Your task to perform on an android device: set an alarm Image 0: 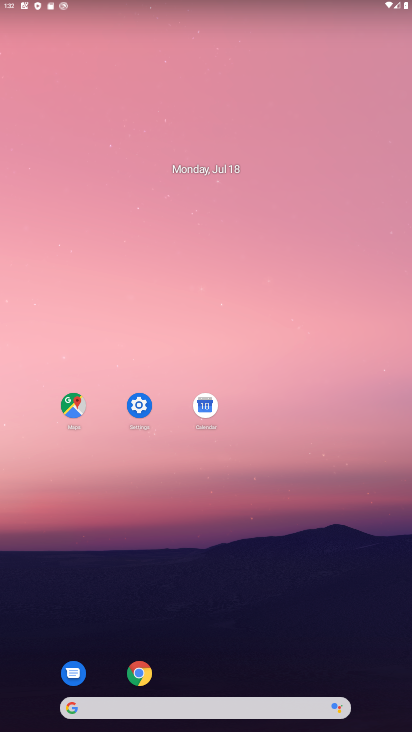
Step 0: click (286, 540)
Your task to perform on an android device: set an alarm Image 1: 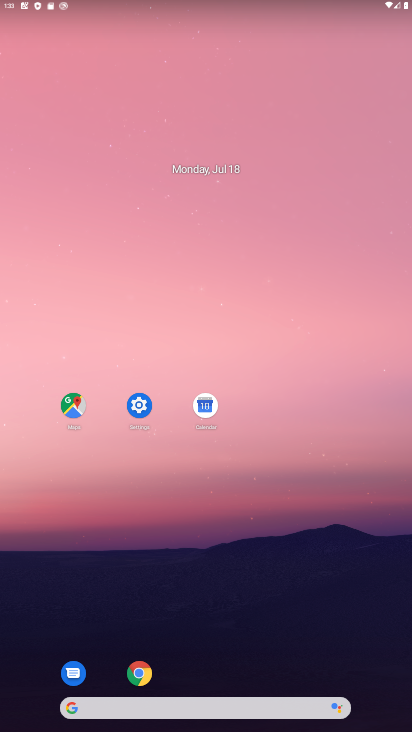
Step 1: drag from (383, 688) to (314, 0)
Your task to perform on an android device: set an alarm Image 2: 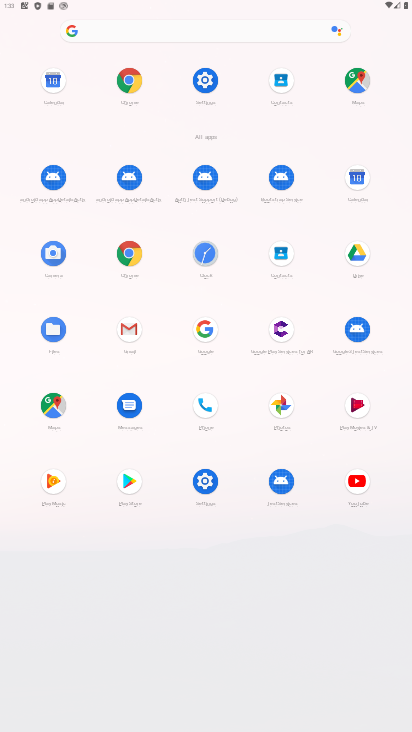
Step 2: click (201, 255)
Your task to perform on an android device: set an alarm Image 3: 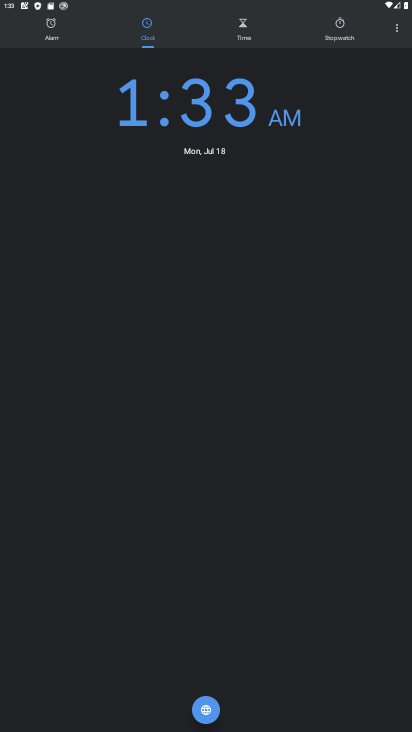
Step 3: click (49, 26)
Your task to perform on an android device: set an alarm Image 4: 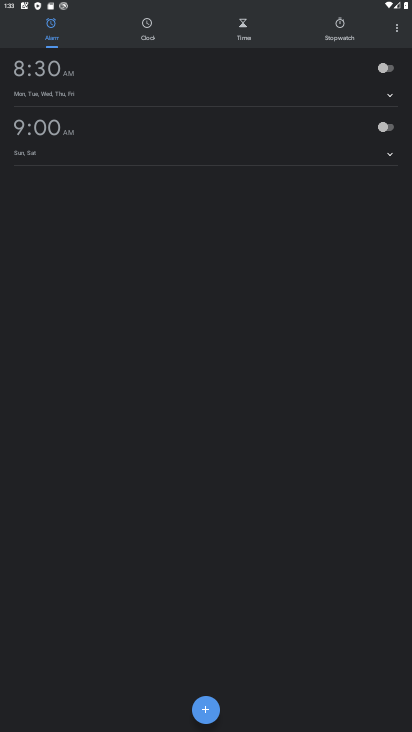
Step 4: click (381, 73)
Your task to perform on an android device: set an alarm Image 5: 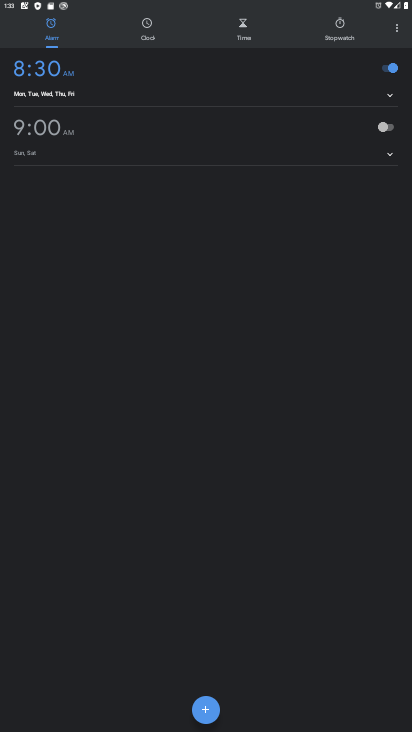
Step 5: task complete